Your task to perform on an android device: turn off improve location accuracy Image 0: 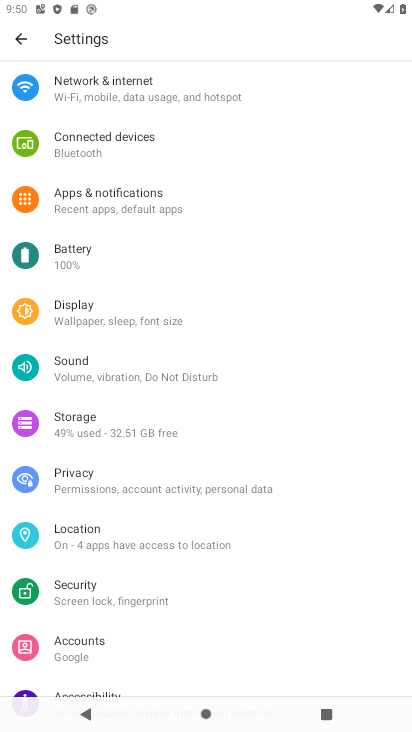
Step 0: click (101, 538)
Your task to perform on an android device: turn off improve location accuracy Image 1: 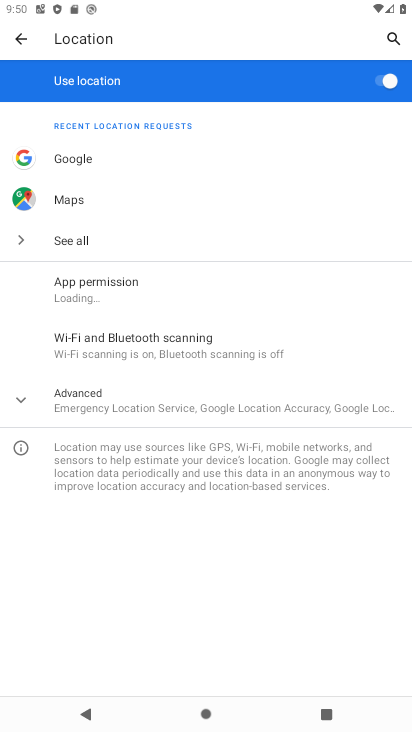
Step 1: click (94, 409)
Your task to perform on an android device: turn off improve location accuracy Image 2: 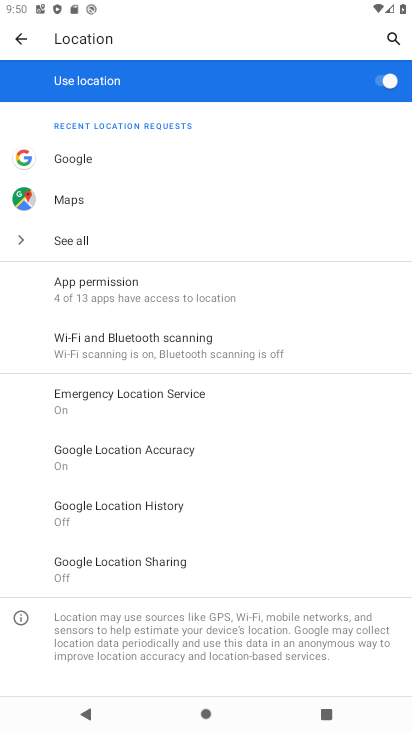
Step 2: click (129, 451)
Your task to perform on an android device: turn off improve location accuracy Image 3: 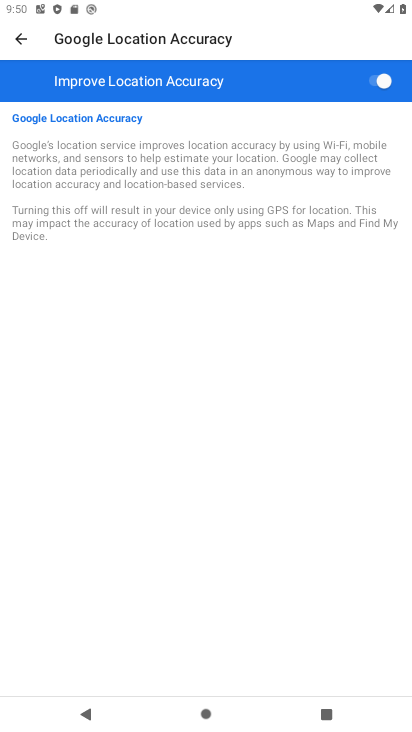
Step 3: click (384, 77)
Your task to perform on an android device: turn off improve location accuracy Image 4: 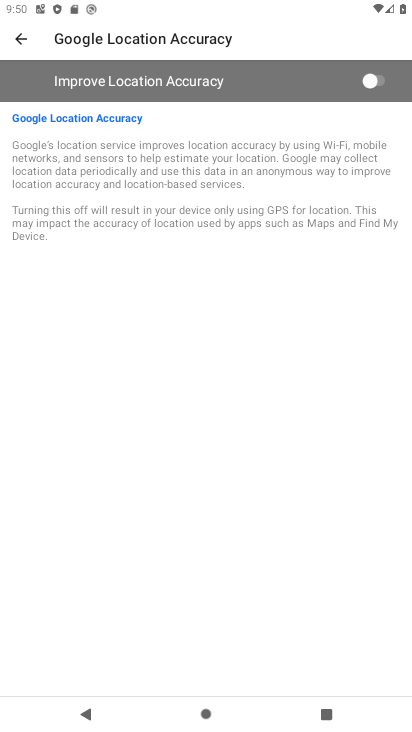
Step 4: task complete